Your task to perform on an android device: find photos in the google photos app Image 0: 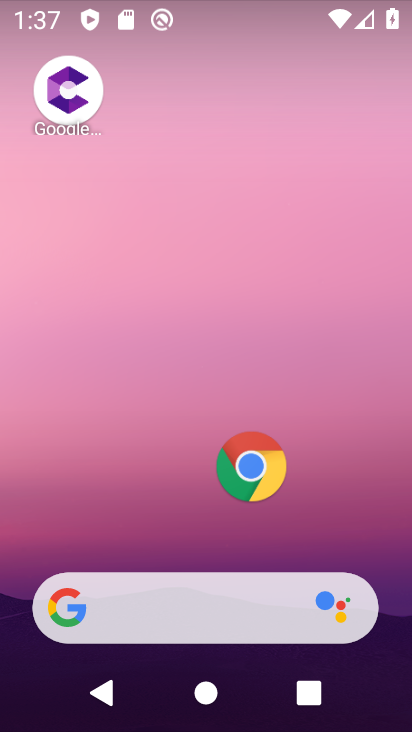
Step 0: drag from (181, 562) to (178, 95)
Your task to perform on an android device: find photos in the google photos app Image 1: 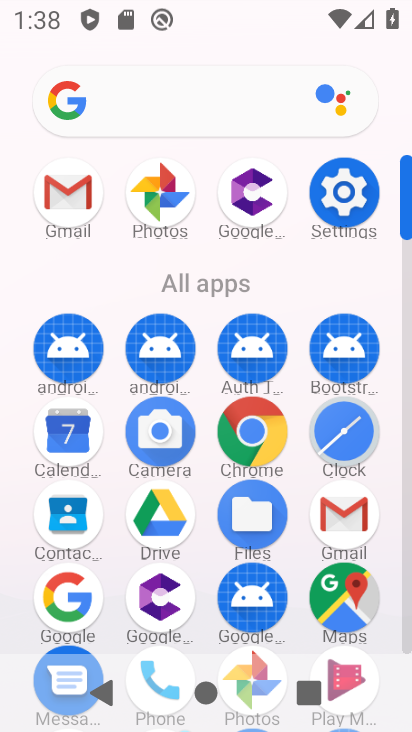
Step 1: click (244, 660)
Your task to perform on an android device: find photos in the google photos app Image 2: 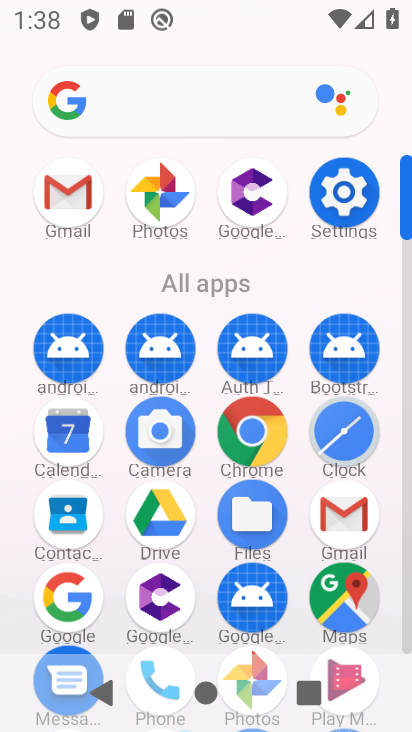
Step 2: click (160, 196)
Your task to perform on an android device: find photos in the google photos app Image 3: 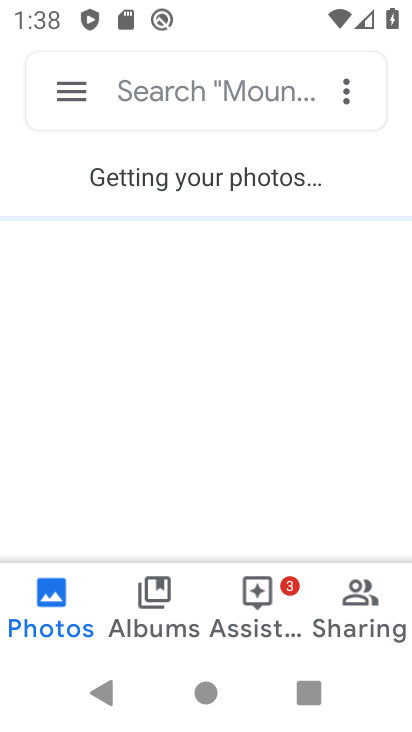
Step 3: click (166, 612)
Your task to perform on an android device: find photos in the google photos app Image 4: 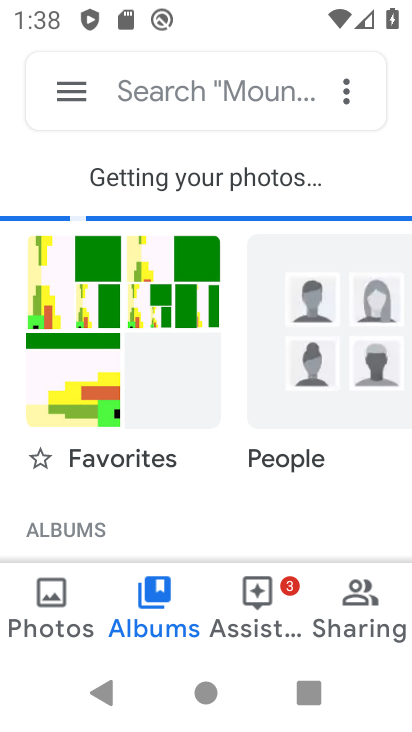
Step 4: drag from (132, 506) to (161, 223)
Your task to perform on an android device: find photos in the google photos app Image 5: 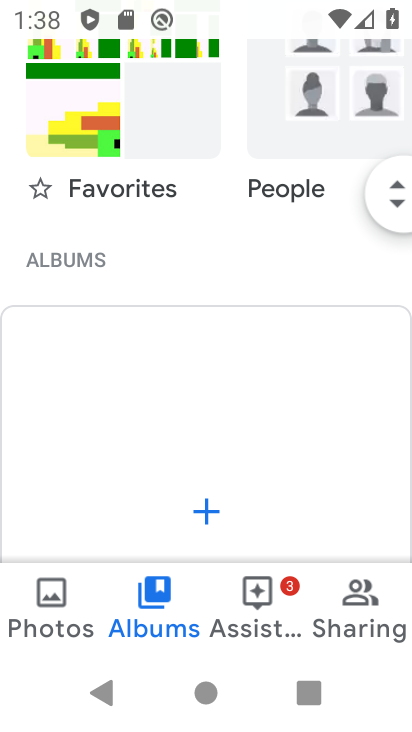
Step 5: click (72, 626)
Your task to perform on an android device: find photos in the google photos app Image 6: 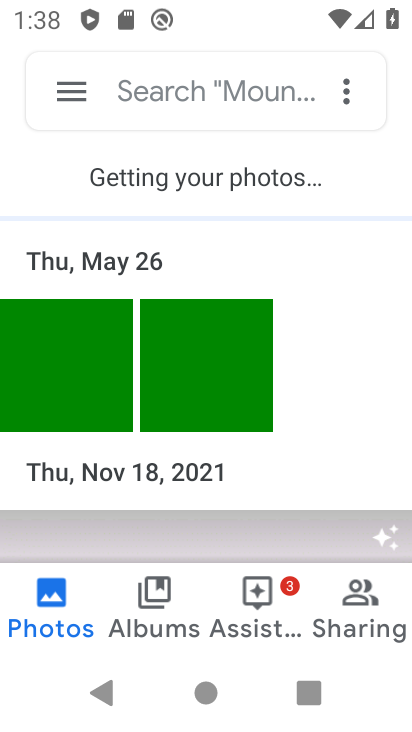
Step 6: click (80, 376)
Your task to perform on an android device: find photos in the google photos app Image 7: 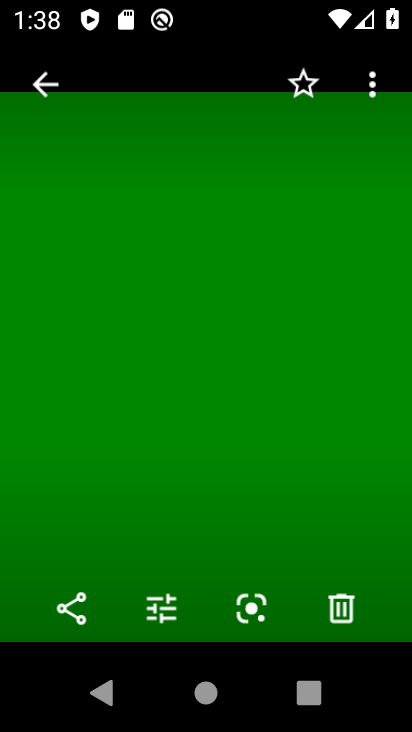
Step 7: click (50, 83)
Your task to perform on an android device: find photos in the google photos app Image 8: 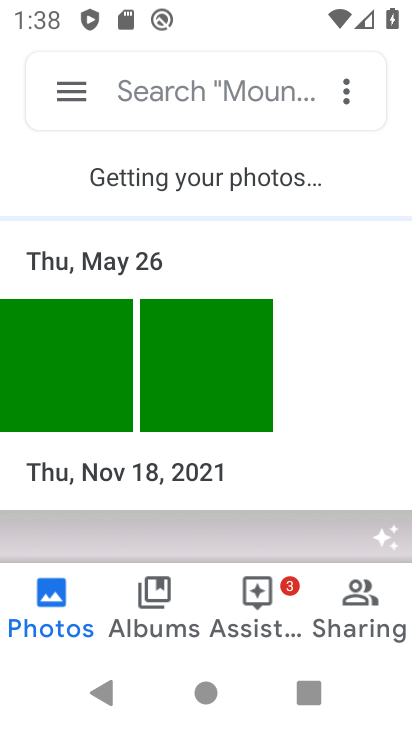
Step 8: task complete